Your task to perform on an android device: see creations saved in the google photos Image 0: 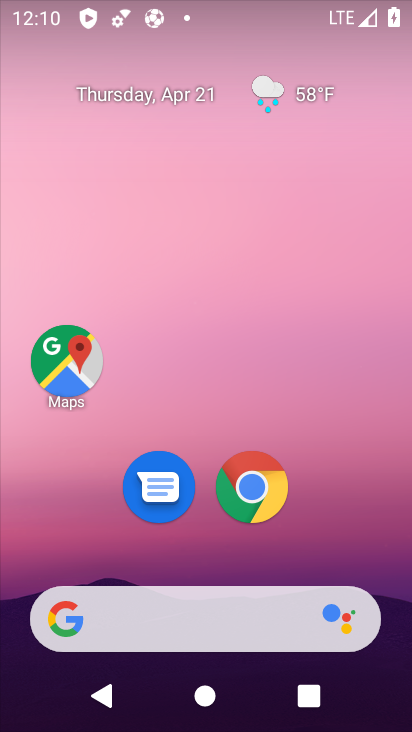
Step 0: drag from (348, 478) to (355, 8)
Your task to perform on an android device: see creations saved in the google photos Image 1: 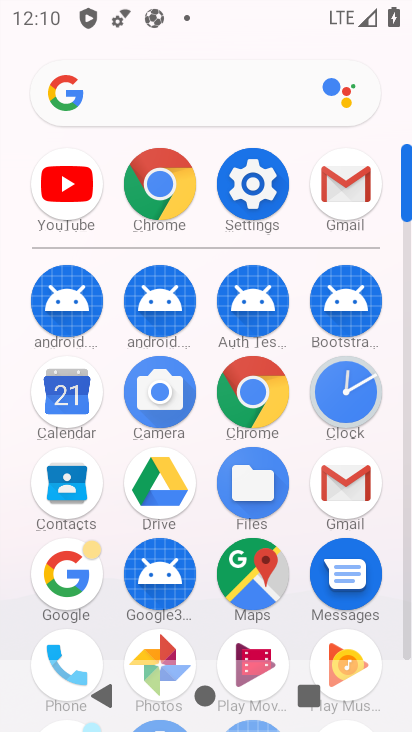
Step 1: click (162, 648)
Your task to perform on an android device: see creations saved in the google photos Image 2: 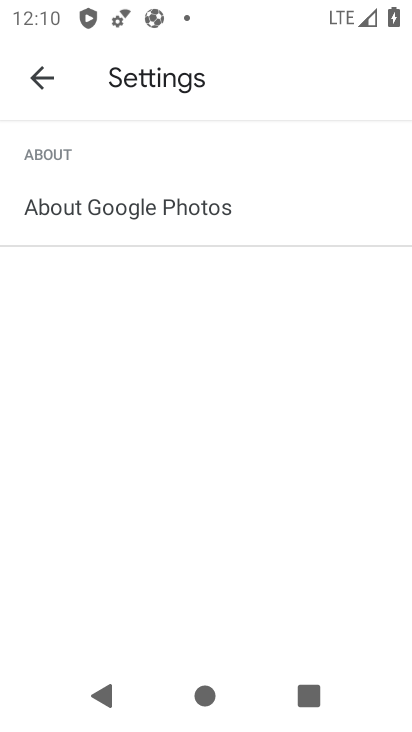
Step 2: click (32, 81)
Your task to perform on an android device: see creations saved in the google photos Image 3: 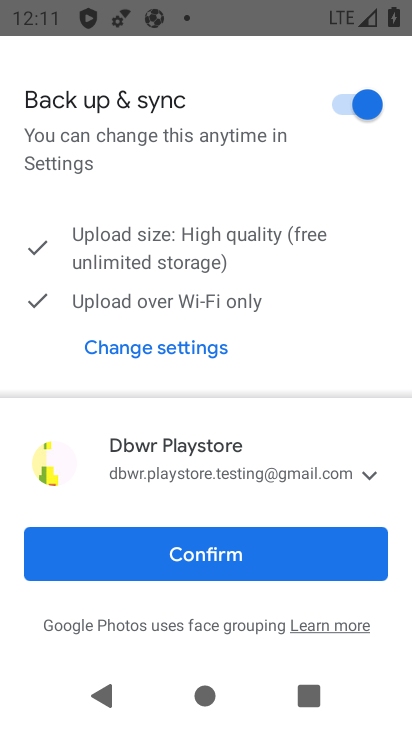
Step 3: click (164, 558)
Your task to perform on an android device: see creations saved in the google photos Image 4: 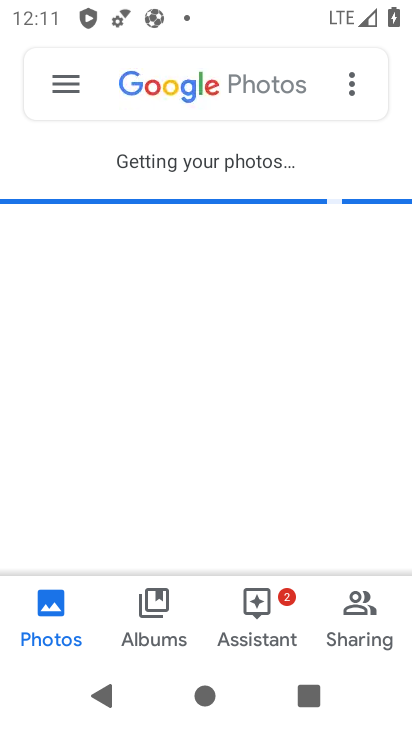
Step 4: click (174, 93)
Your task to perform on an android device: see creations saved in the google photos Image 5: 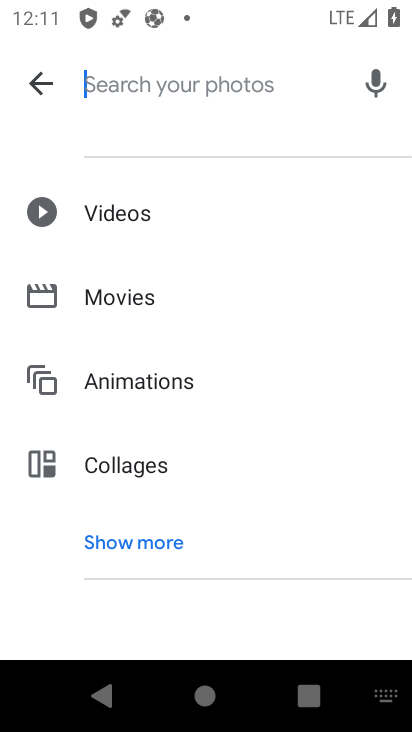
Step 5: click (138, 540)
Your task to perform on an android device: see creations saved in the google photos Image 6: 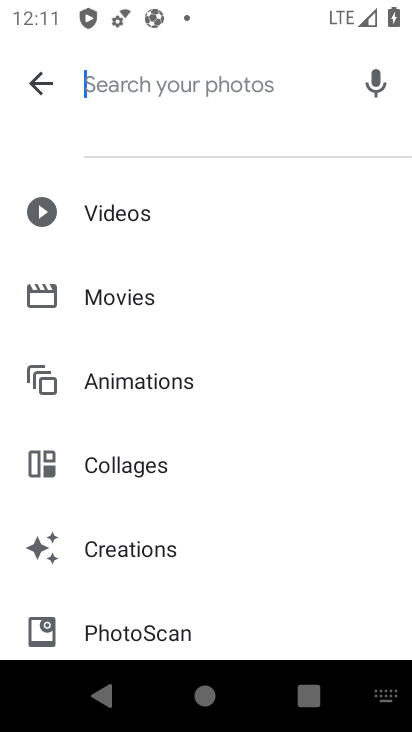
Step 6: click (138, 540)
Your task to perform on an android device: see creations saved in the google photos Image 7: 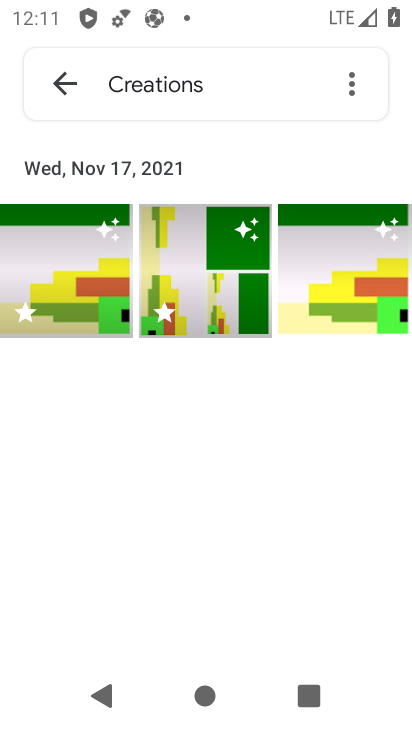
Step 7: task complete